Your task to perform on an android device: Open Google Maps and go to "Timeline" Image 0: 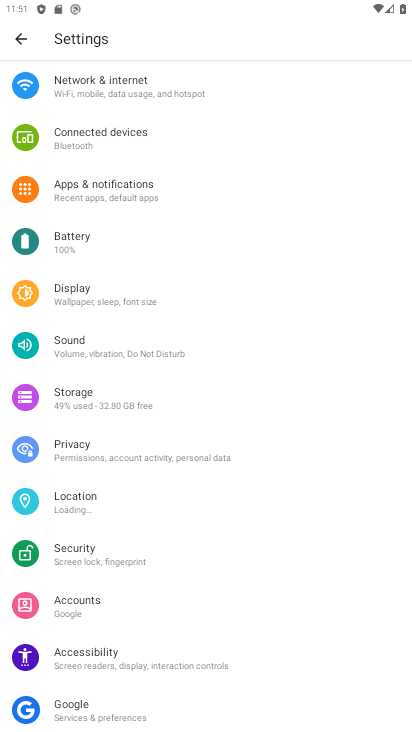
Step 0: press home button
Your task to perform on an android device: Open Google Maps and go to "Timeline" Image 1: 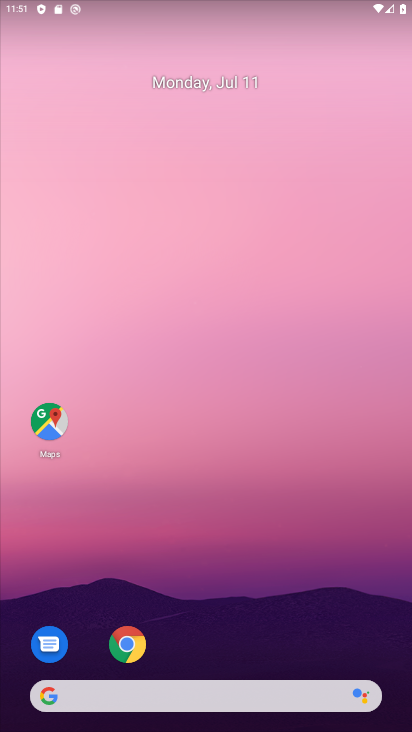
Step 1: click (40, 444)
Your task to perform on an android device: Open Google Maps and go to "Timeline" Image 2: 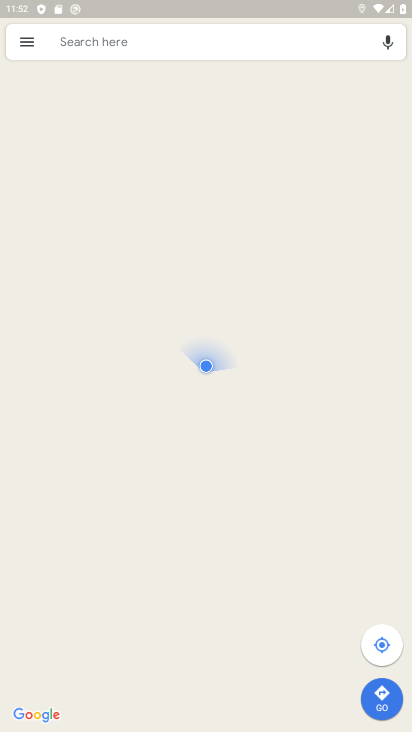
Step 2: click (28, 42)
Your task to perform on an android device: Open Google Maps and go to "Timeline" Image 3: 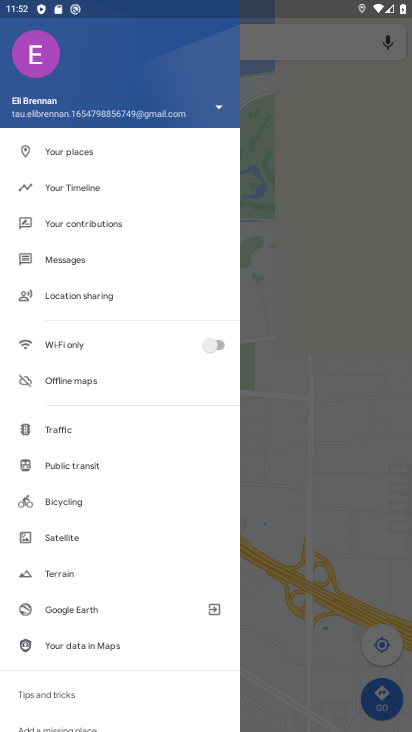
Step 3: click (75, 188)
Your task to perform on an android device: Open Google Maps and go to "Timeline" Image 4: 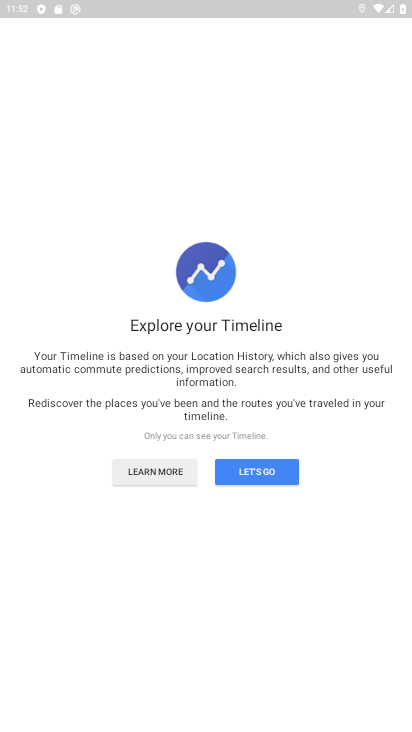
Step 4: click (252, 468)
Your task to perform on an android device: Open Google Maps and go to "Timeline" Image 5: 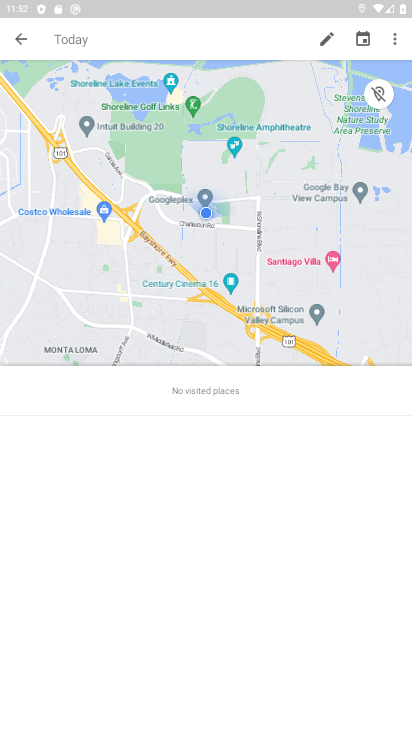
Step 5: task complete